Your task to perform on an android device: turn smart compose on in the gmail app Image 0: 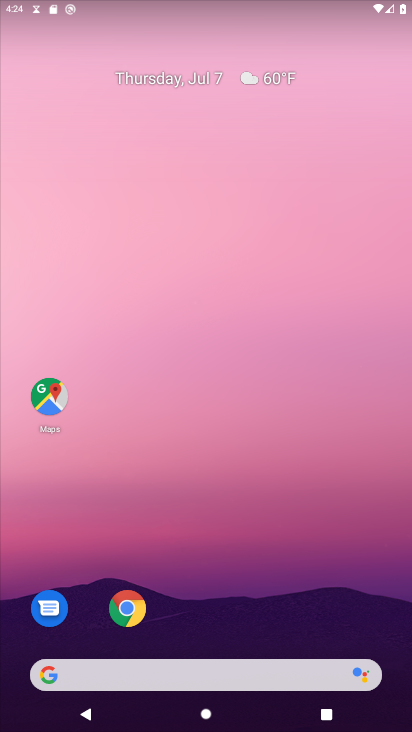
Step 0: drag from (242, 653) to (350, 89)
Your task to perform on an android device: turn smart compose on in the gmail app Image 1: 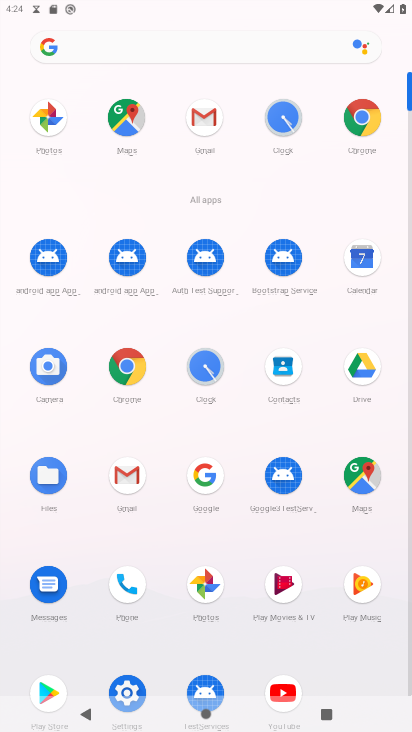
Step 1: click (140, 478)
Your task to perform on an android device: turn smart compose on in the gmail app Image 2: 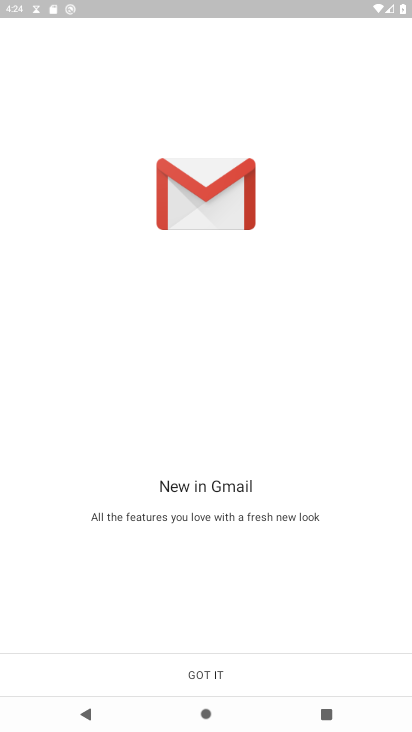
Step 2: click (220, 672)
Your task to perform on an android device: turn smart compose on in the gmail app Image 3: 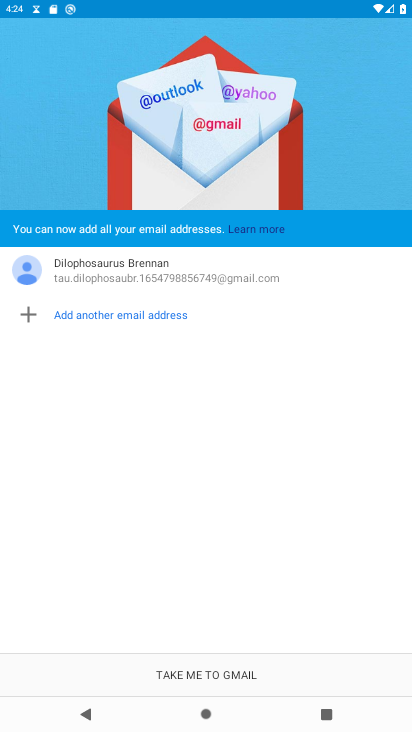
Step 3: click (187, 674)
Your task to perform on an android device: turn smart compose on in the gmail app Image 4: 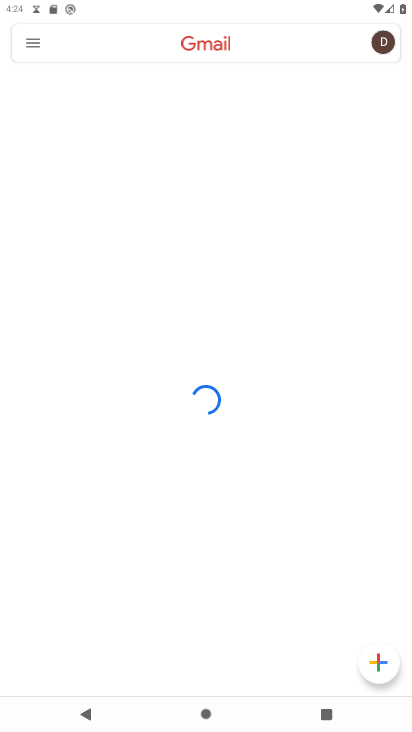
Step 4: click (25, 37)
Your task to perform on an android device: turn smart compose on in the gmail app Image 5: 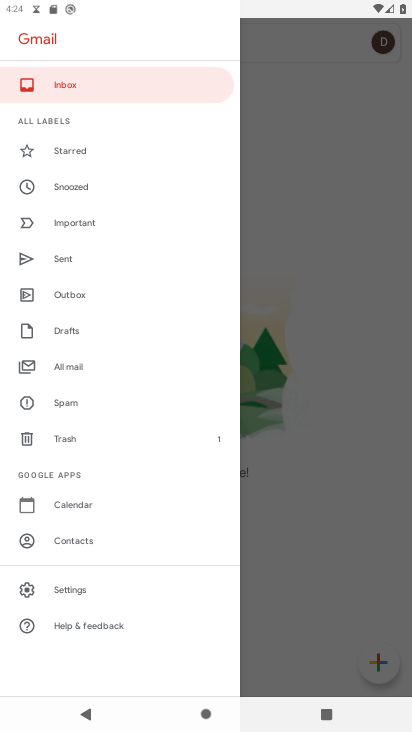
Step 5: click (79, 584)
Your task to perform on an android device: turn smart compose on in the gmail app Image 6: 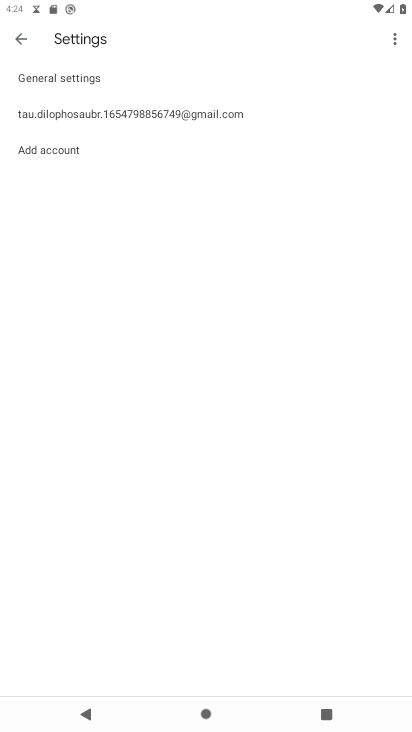
Step 6: click (222, 118)
Your task to perform on an android device: turn smart compose on in the gmail app Image 7: 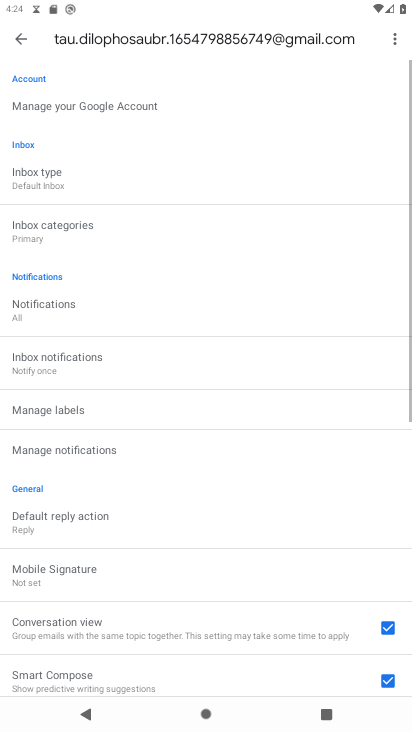
Step 7: task complete